Your task to perform on an android device: read, delete, or share a saved page in the chrome app Image 0: 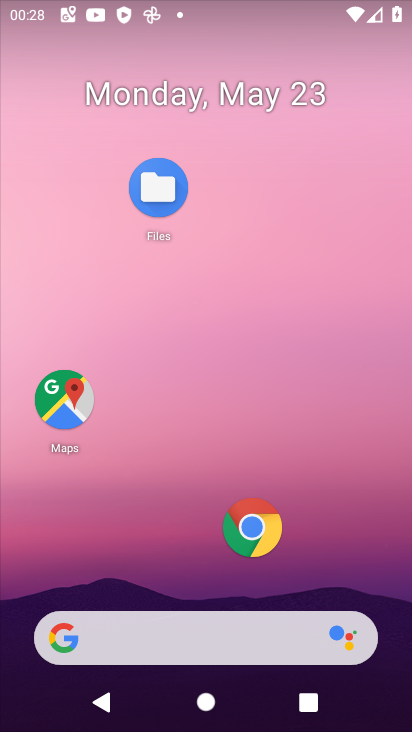
Step 0: click (264, 520)
Your task to perform on an android device: read, delete, or share a saved page in the chrome app Image 1: 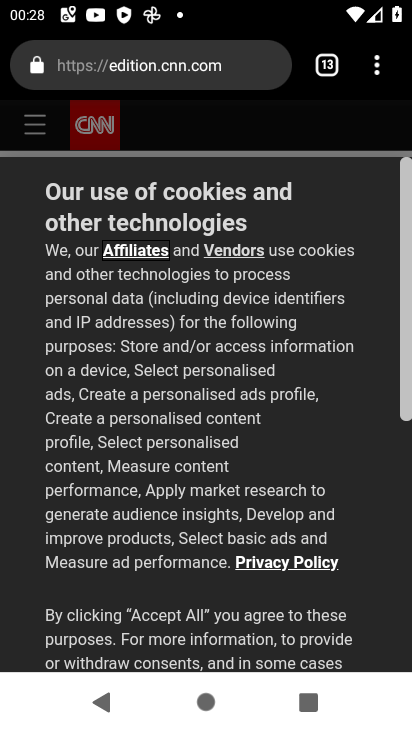
Step 1: click (371, 65)
Your task to perform on an android device: read, delete, or share a saved page in the chrome app Image 2: 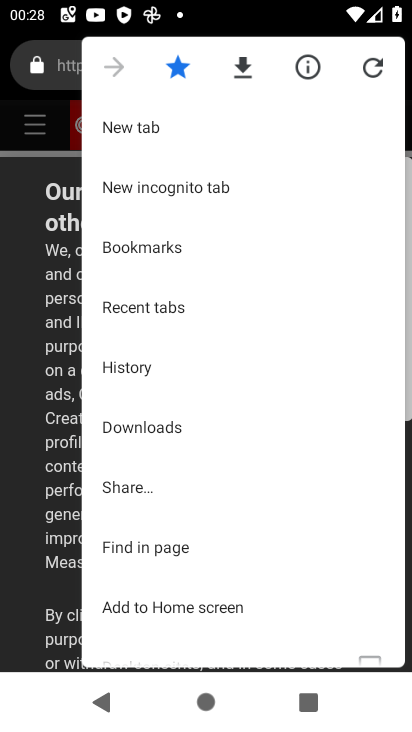
Step 2: drag from (227, 573) to (242, 292)
Your task to perform on an android device: read, delete, or share a saved page in the chrome app Image 3: 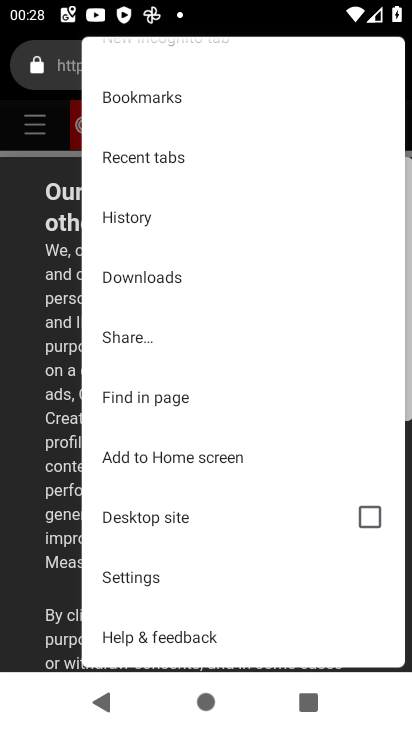
Step 3: click (127, 262)
Your task to perform on an android device: read, delete, or share a saved page in the chrome app Image 4: 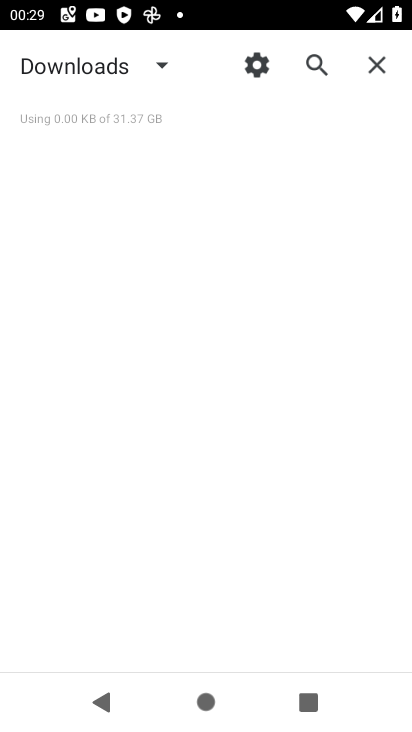
Step 4: task complete